Your task to perform on an android device: snooze an email in the gmail app Image 0: 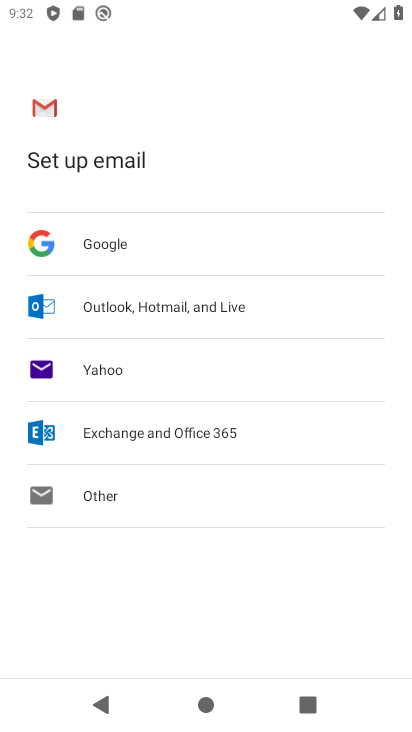
Step 0: press back button
Your task to perform on an android device: snooze an email in the gmail app Image 1: 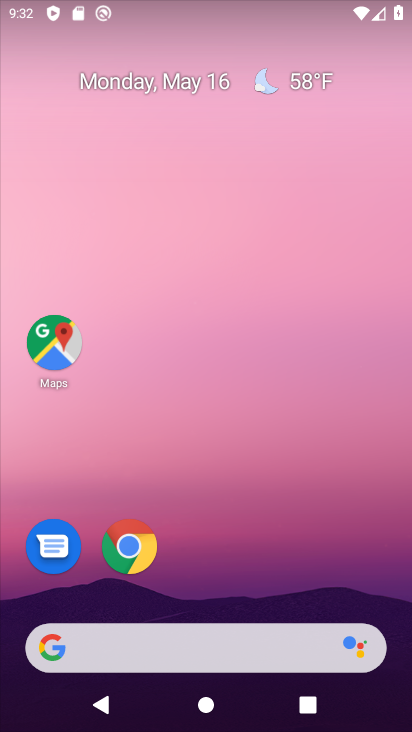
Step 1: drag from (239, 576) to (228, 252)
Your task to perform on an android device: snooze an email in the gmail app Image 2: 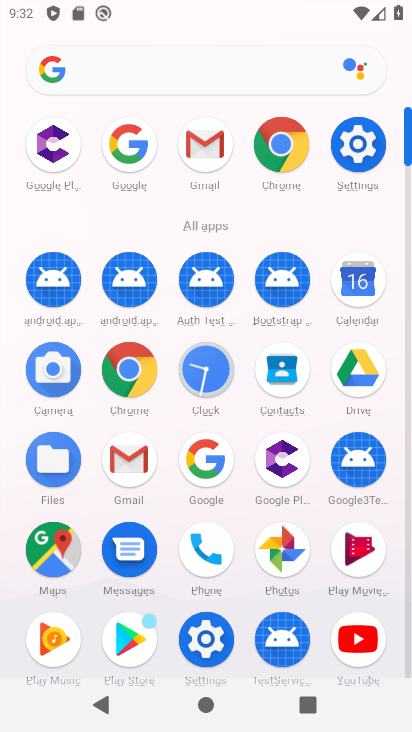
Step 2: click (205, 140)
Your task to perform on an android device: snooze an email in the gmail app Image 3: 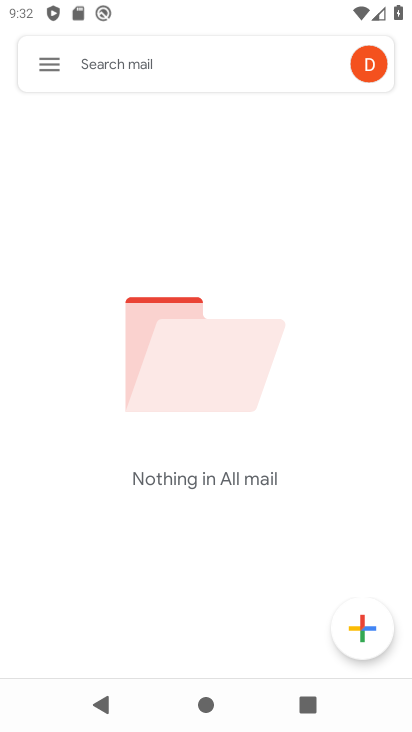
Step 3: click (58, 62)
Your task to perform on an android device: snooze an email in the gmail app Image 4: 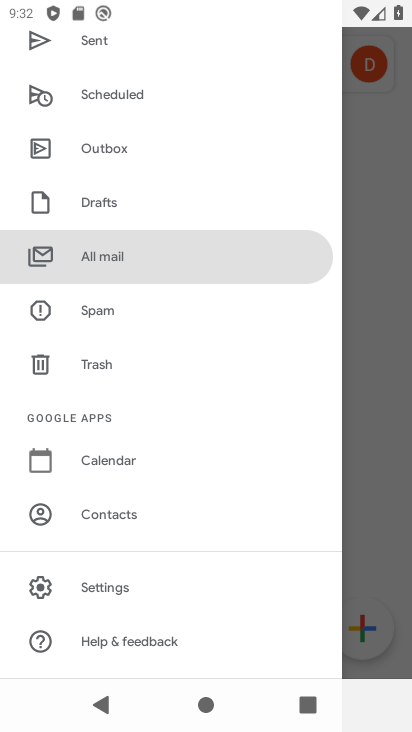
Step 4: drag from (160, 185) to (162, 279)
Your task to perform on an android device: snooze an email in the gmail app Image 5: 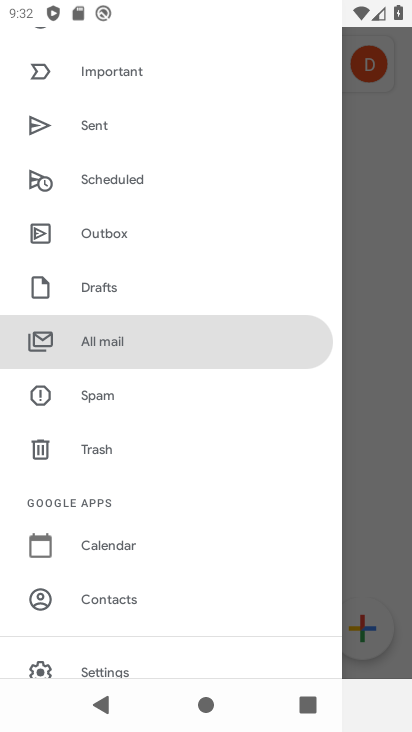
Step 5: drag from (170, 208) to (173, 294)
Your task to perform on an android device: snooze an email in the gmail app Image 6: 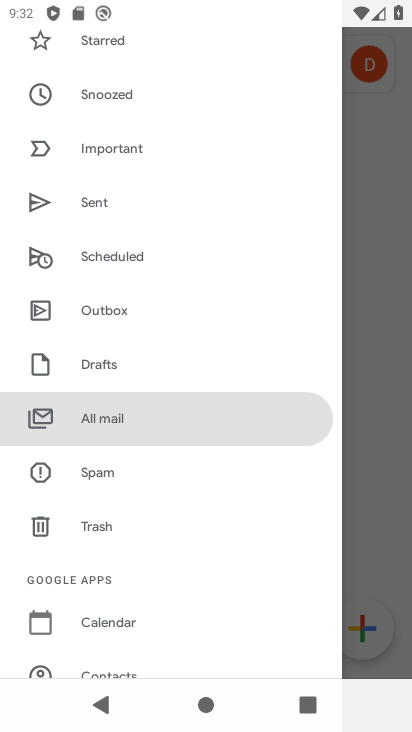
Step 6: click (125, 96)
Your task to perform on an android device: snooze an email in the gmail app Image 7: 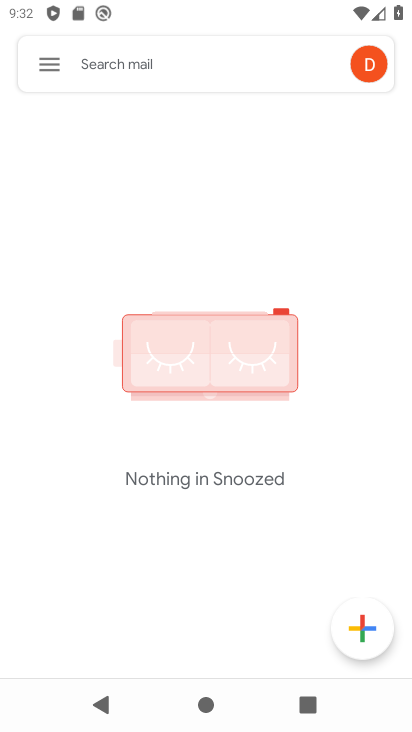
Step 7: click (53, 63)
Your task to perform on an android device: snooze an email in the gmail app Image 8: 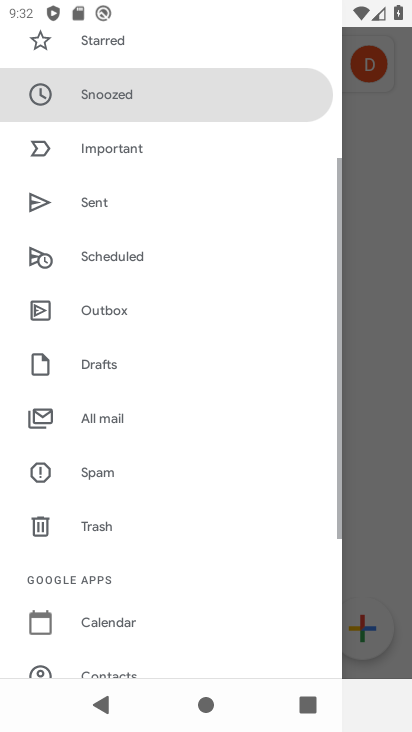
Step 8: drag from (132, 218) to (151, 333)
Your task to perform on an android device: snooze an email in the gmail app Image 9: 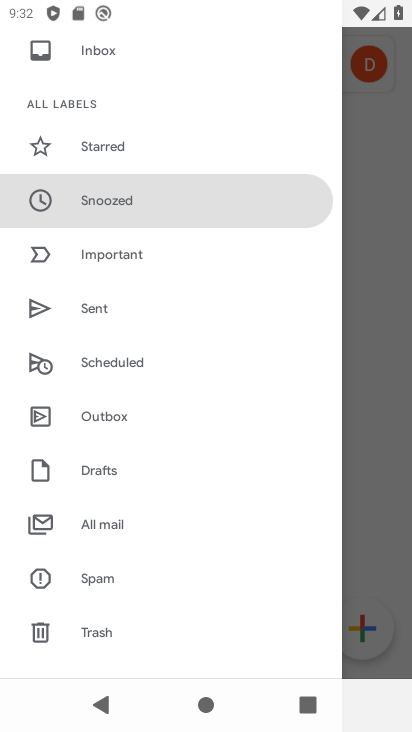
Step 9: drag from (160, 188) to (197, 316)
Your task to perform on an android device: snooze an email in the gmail app Image 10: 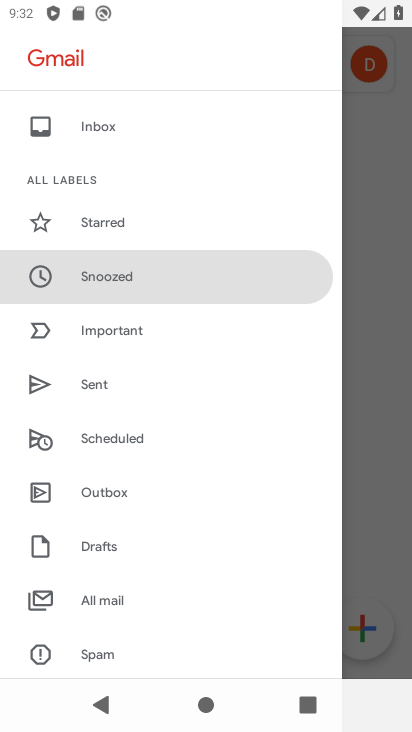
Step 10: click (101, 119)
Your task to perform on an android device: snooze an email in the gmail app Image 11: 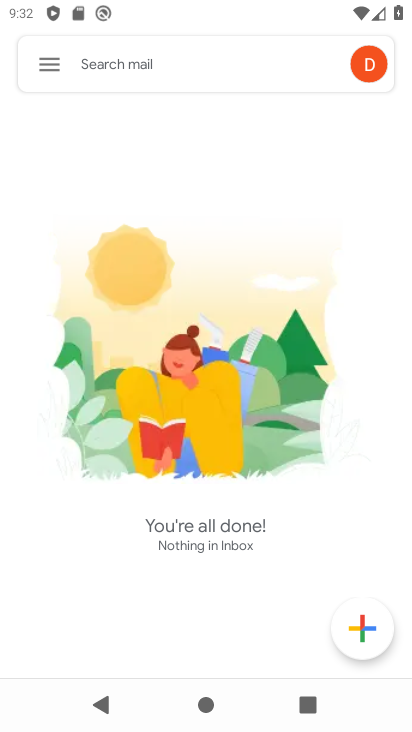
Step 11: task complete